Your task to perform on an android device: turn pop-ups off in chrome Image 0: 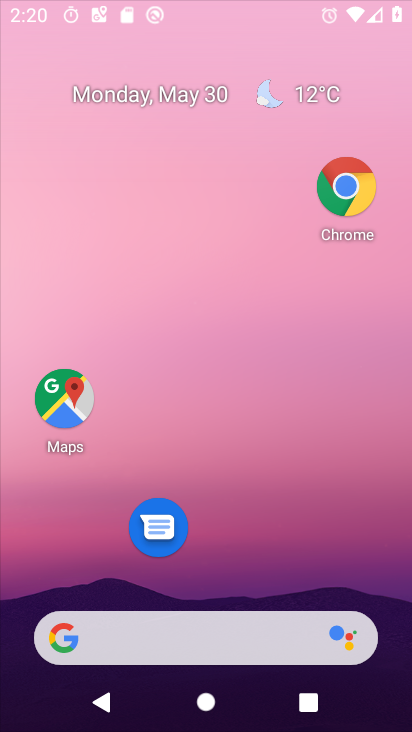
Step 0: drag from (221, 544) to (272, 106)
Your task to perform on an android device: turn pop-ups off in chrome Image 1: 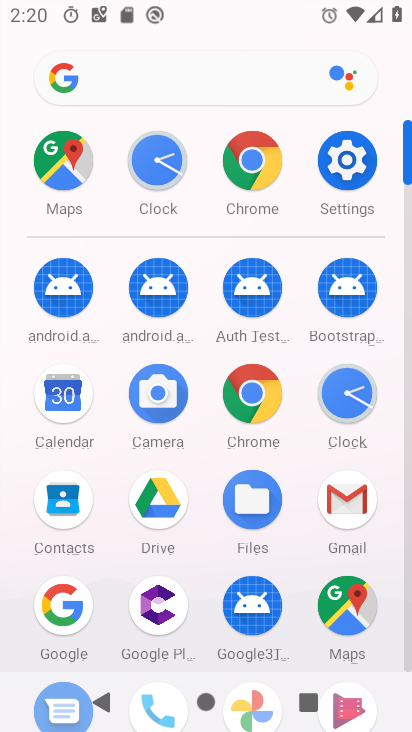
Step 1: click (257, 386)
Your task to perform on an android device: turn pop-ups off in chrome Image 2: 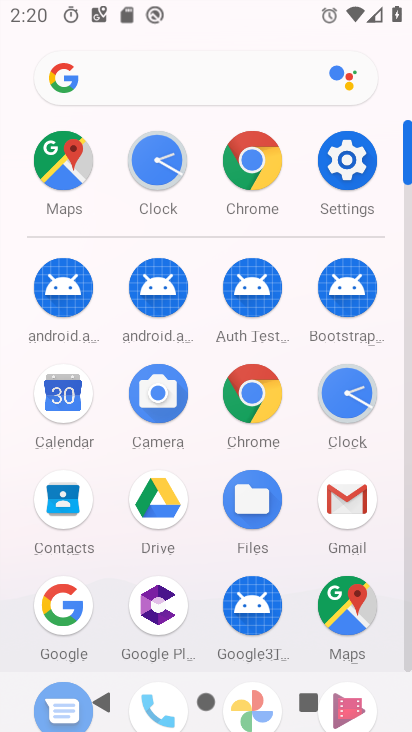
Step 2: click (257, 386)
Your task to perform on an android device: turn pop-ups off in chrome Image 3: 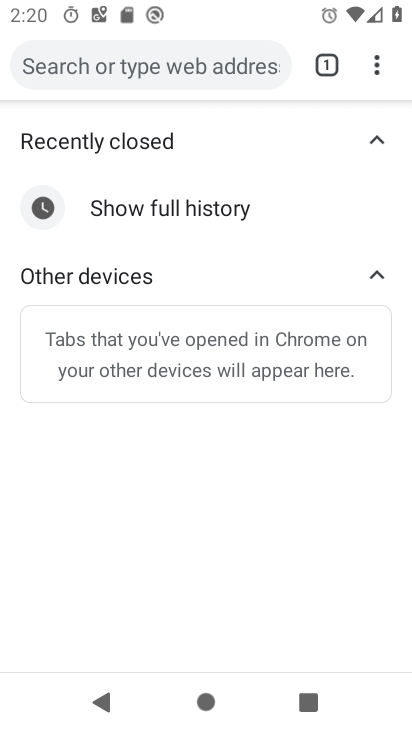
Step 3: drag from (191, 480) to (213, 214)
Your task to perform on an android device: turn pop-ups off in chrome Image 4: 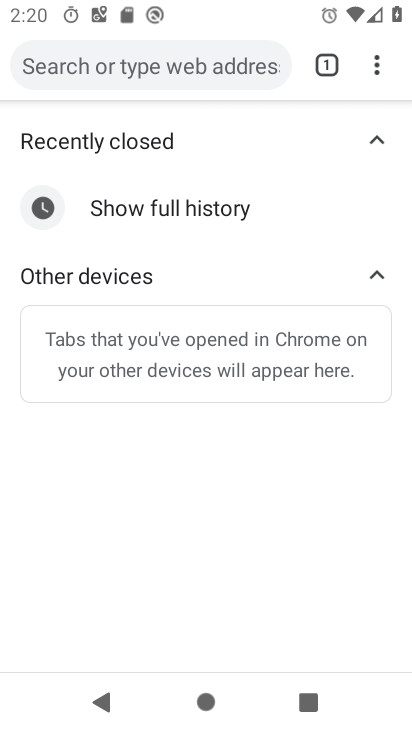
Step 4: drag from (373, 71) to (204, 552)
Your task to perform on an android device: turn pop-ups off in chrome Image 5: 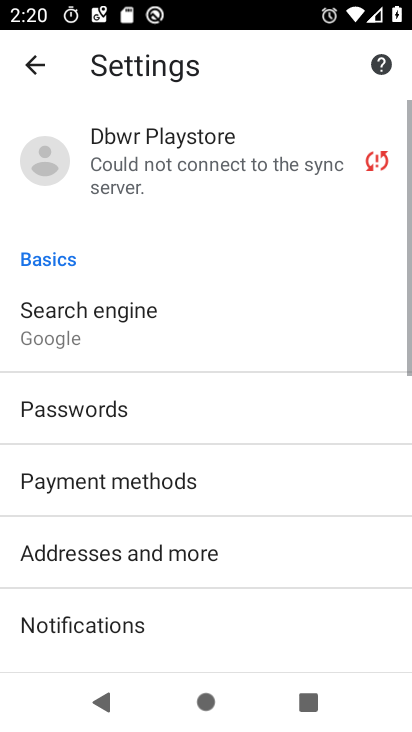
Step 5: drag from (220, 472) to (225, 101)
Your task to perform on an android device: turn pop-ups off in chrome Image 6: 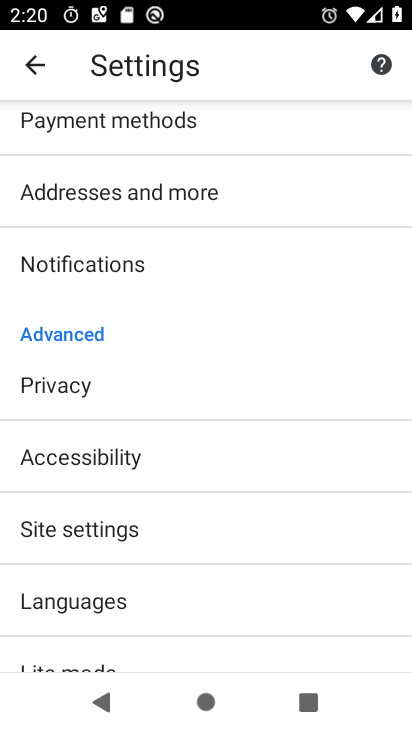
Step 6: click (136, 543)
Your task to perform on an android device: turn pop-ups off in chrome Image 7: 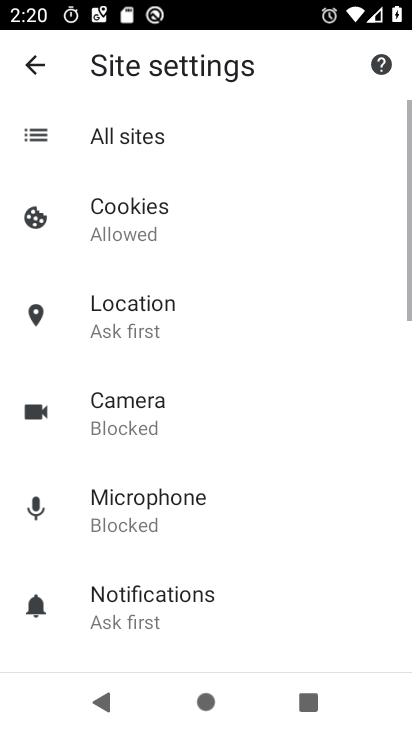
Step 7: drag from (177, 404) to (231, 67)
Your task to perform on an android device: turn pop-ups off in chrome Image 8: 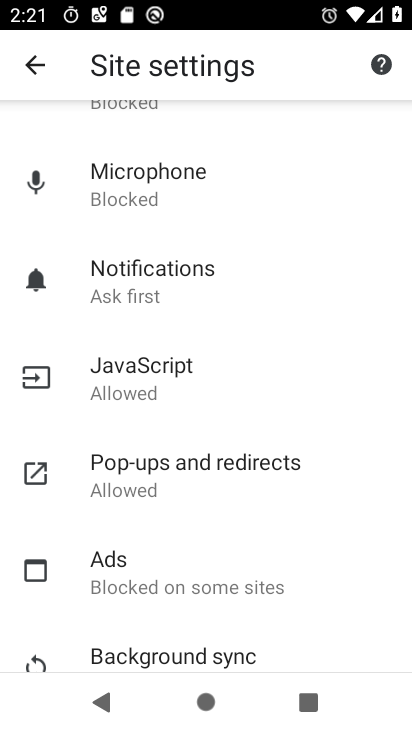
Step 8: click (180, 471)
Your task to perform on an android device: turn pop-ups off in chrome Image 9: 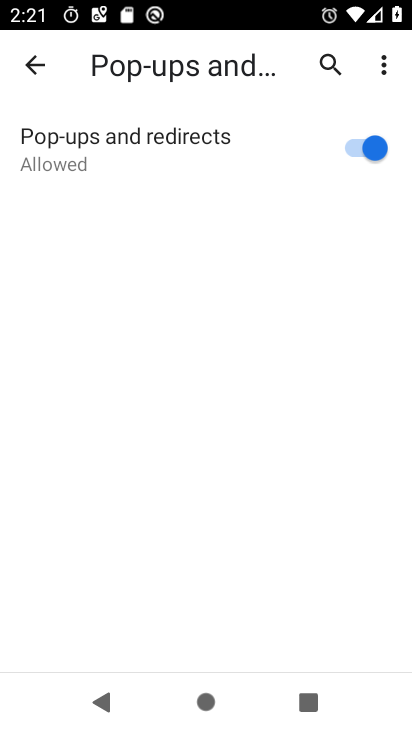
Step 9: click (364, 140)
Your task to perform on an android device: turn pop-ups off in chrome Image 10: 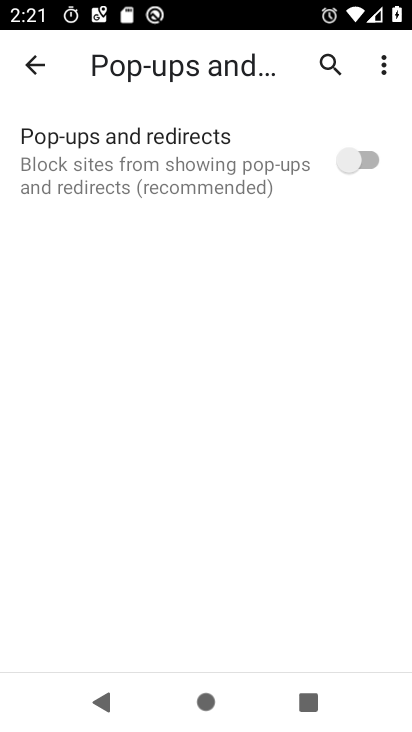
Step 10: task complete